Your task to perform on an android device: What's the weather today? Image 0: 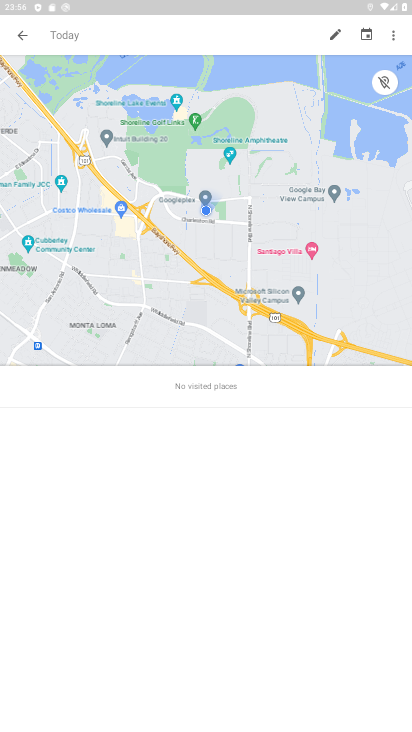
Step 0: press home button
Your task to perform on an android device: What's the weather today? Image 1: 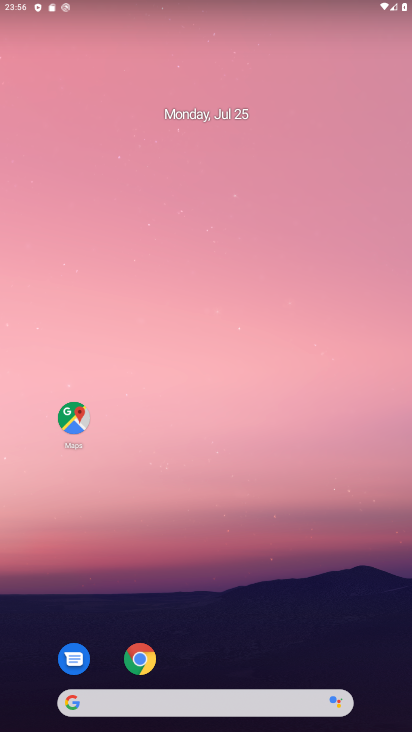
Step 1: drag from (286, 601) to (323, 73)
Your task to perform on an android device: What's the weather today? Image 2: 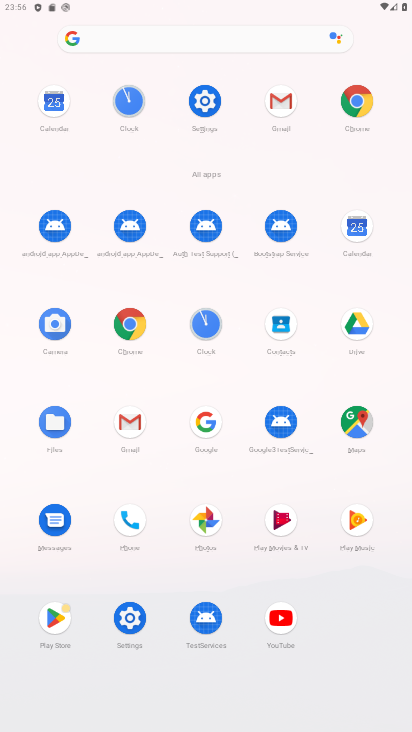
Step 2: click (360, 98)
Your task to perform on an android device: What's the weather today? Image 3: 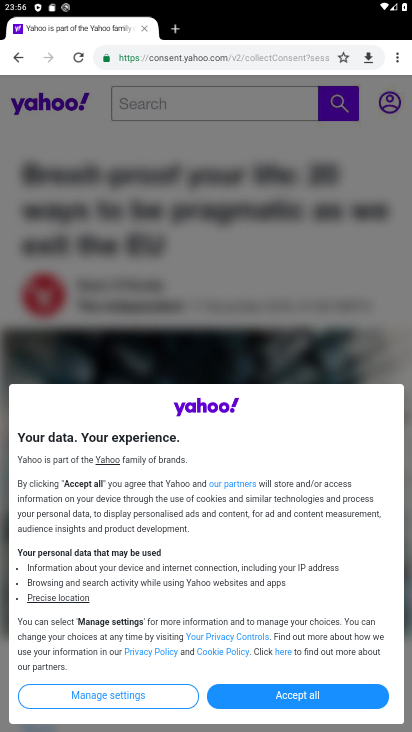
Step 3: click (263, 59)
Your task to perform on an android device: What's the weather today? Image 4: 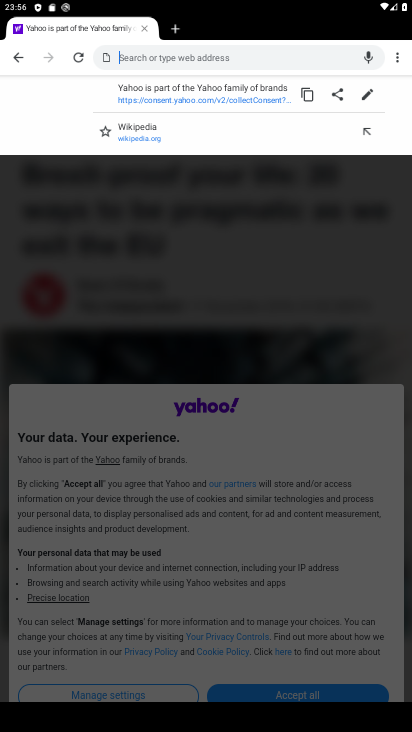
Step 4: type "weather"
Your task to perform on an android device: What's the weather today? Image 5: 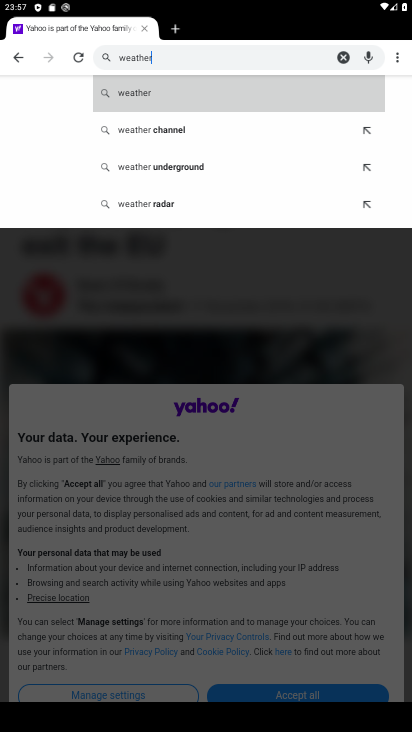
Step 5: click (204, 94)
Your task to perform on an android device: What's the weather today? Image 6: 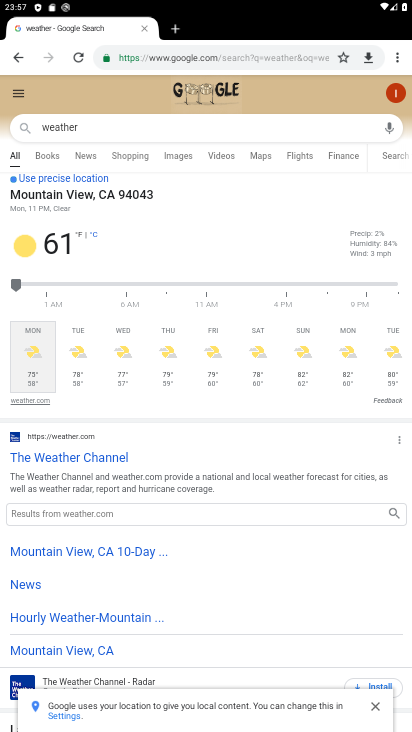
Step 6: task complete